Your task to perform on an android device: Open ESPN.com Image 0: 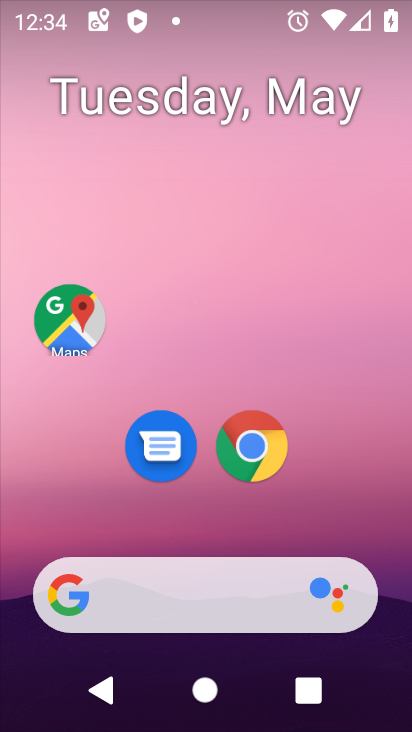
Step 0: drag from (296, 525) to (302, 173)
Your task to perform on an android device: Open ESPN.com Image 1: 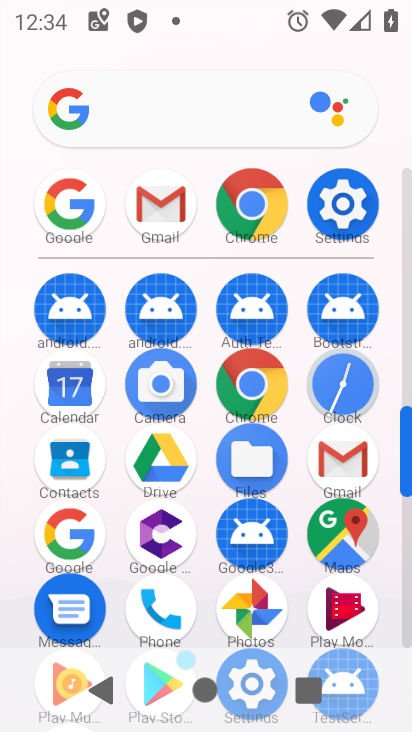
Step 1: click (259, 194)
Your task to perform on an android device: Open ESPN.com Image 2: 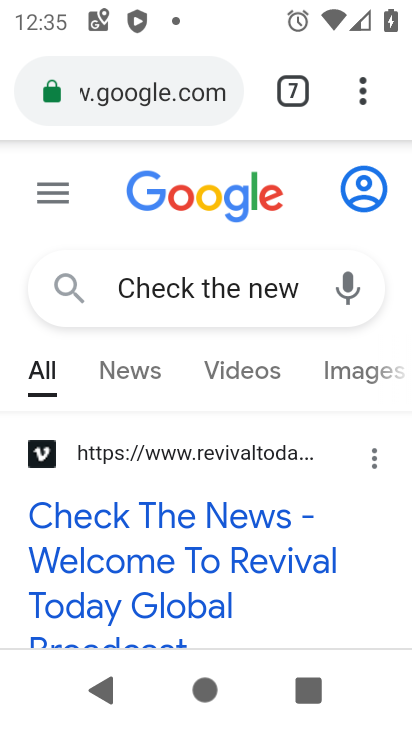
Step 2: click (358, 80)
Your task to perform on an android device: Open ESPN.com Image 3: 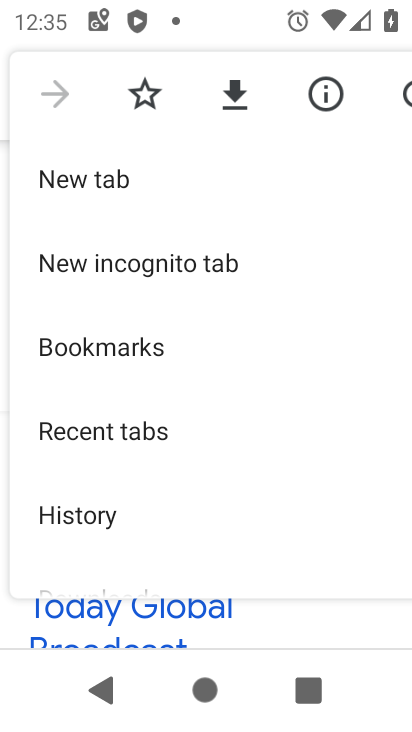
Step 3: click (123, 183)
Your task to perform on an android device: Open ESPN.com Image 4: 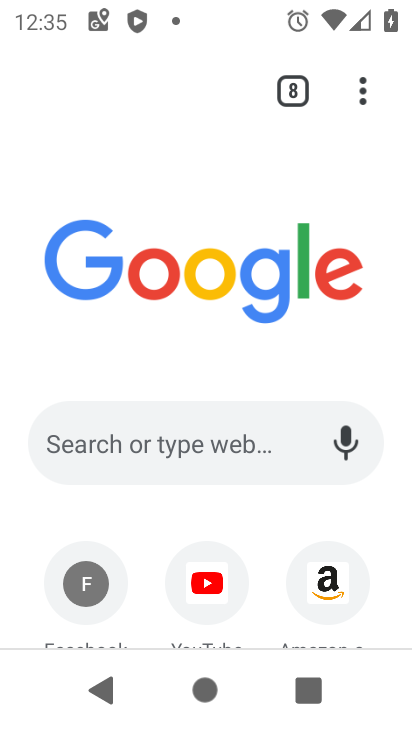
Step 4: drag from (196, 563) to (257, 239)
Your task to perform on an android device: Open ESPN.com Image 5: 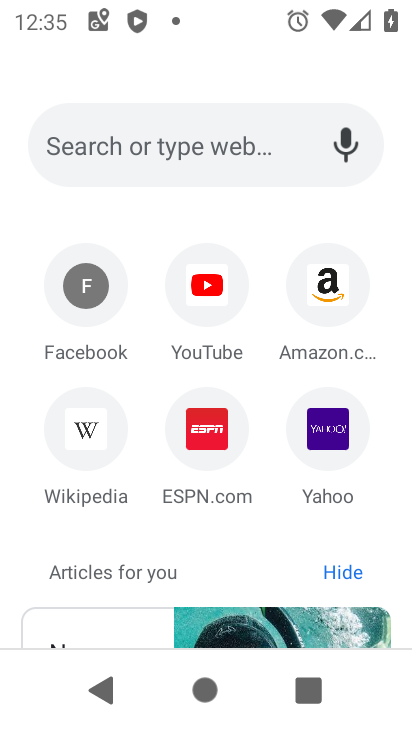
Step 5: click (196, 425)
Your task to perform on an android device: Open ESPN.com Image 6: 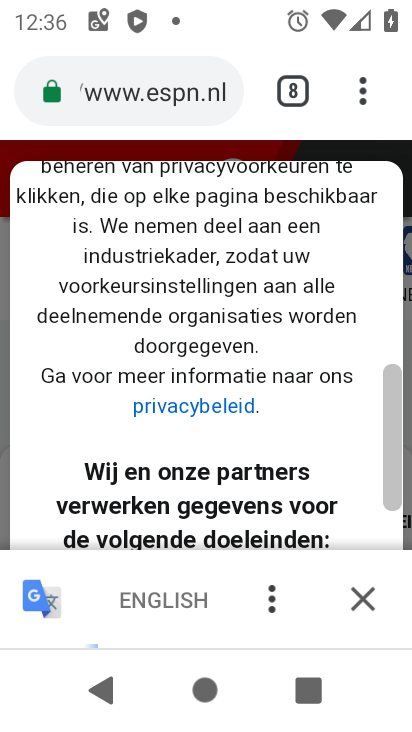
Step 6: click (365, 607)
Your task to perform on an android device: Open ESPN.com Image 7: 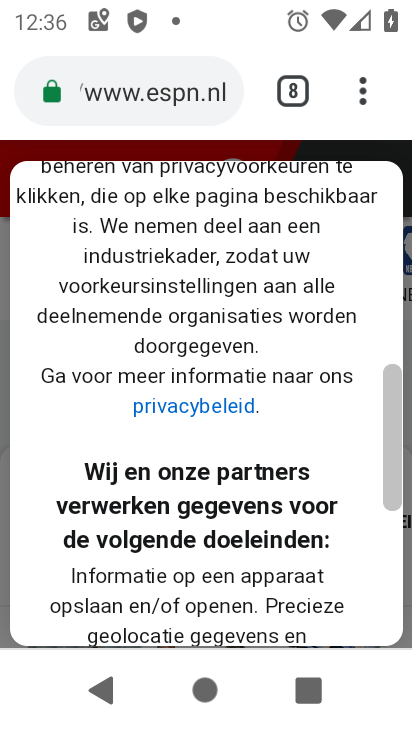
Step 7: drag from (279, 562) to (331, 254)
Your task to perform on an android device: Open ESPN.com Image 8: 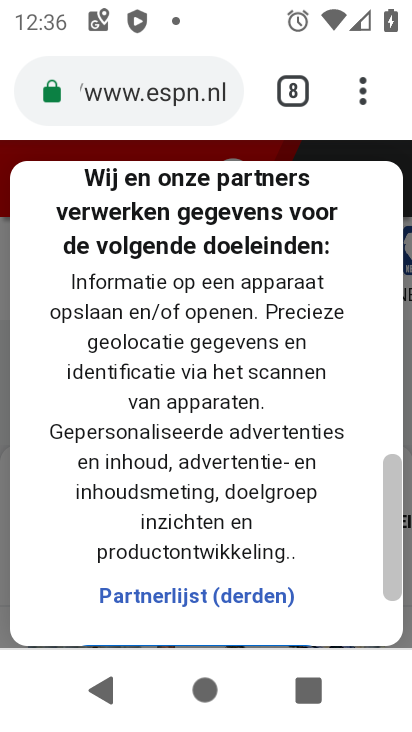
Step 8: drag from (191, 596) to (261, 277)
Your task to perform on an android device: Open ESPN.com Image 9: 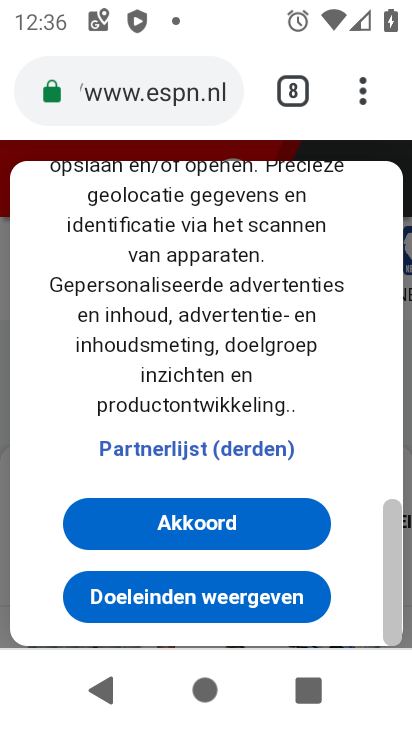
Step 9: click (162, 518)
Your task to perform on an android device: Open ESPN.com Image 10: 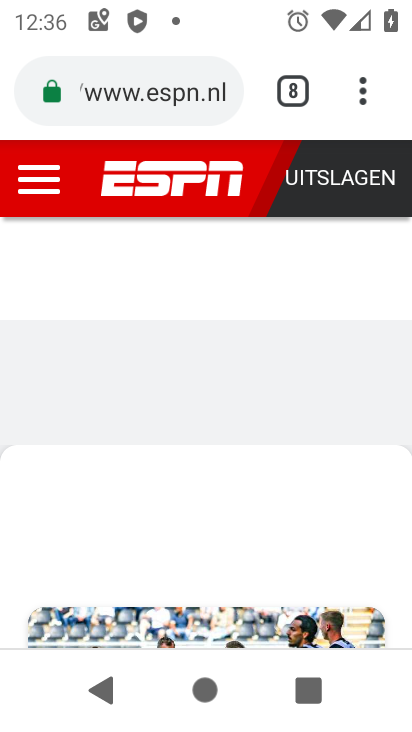
Step 10: task complete